Your task to perform on an android device: install app "Fetch Rewards" Image 0: 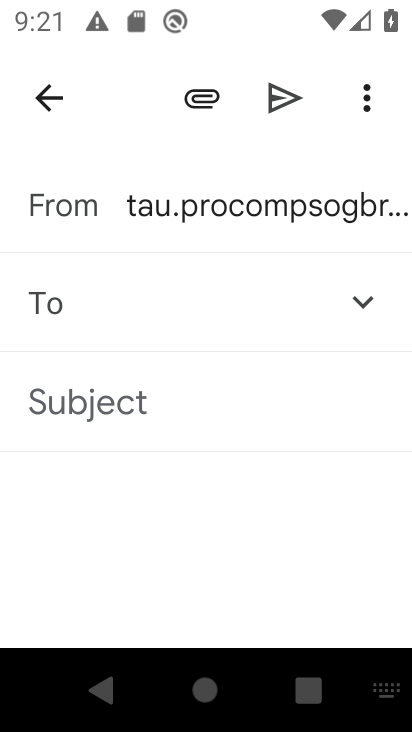
Step 0: press home button
Your task to perform on an android device: install app "Fetch Rewards" Image 1: 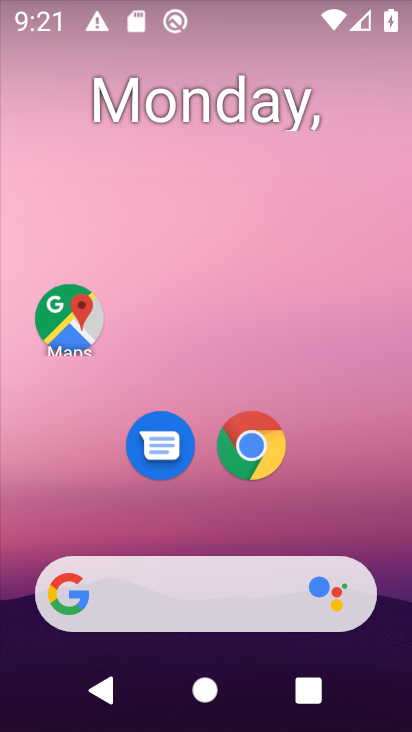
Step 1: drag from (396, 619) to (221, 39)
Your task to perform on an android device: install app "Fetch Rewards" Image 2: 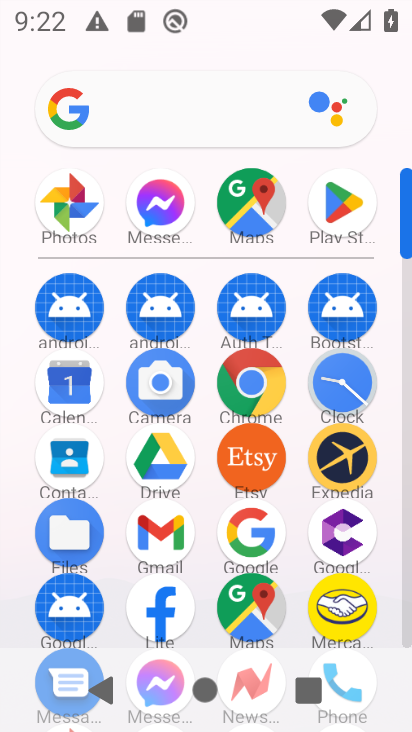
Step 2: click (356, 197)
Your task to perform on an android device: install app "Fetch Rewards" Image 3: 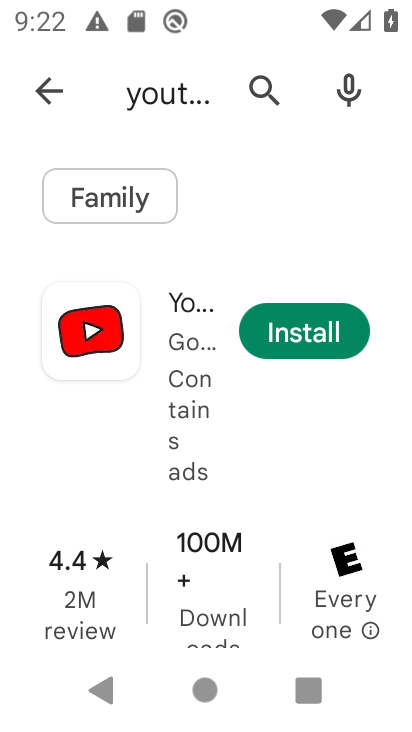
Step 3: press back button
Your task to perform on an android device: install app "Fetch Rewards" Image 4: 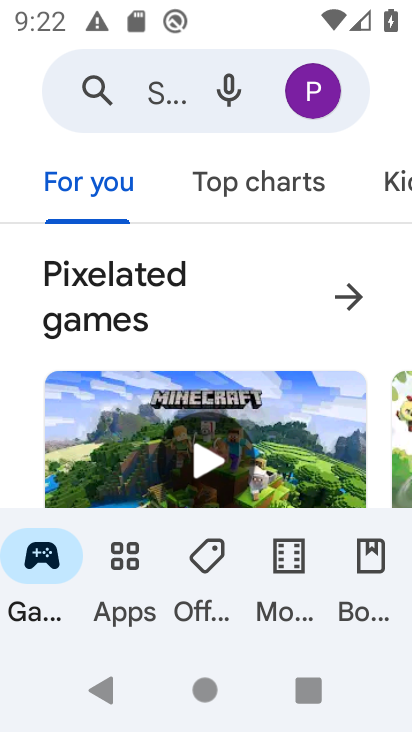
Step 4: click (157, 97)
Your task to perform on an android device: install app "Fetch Rewards" Image 5: 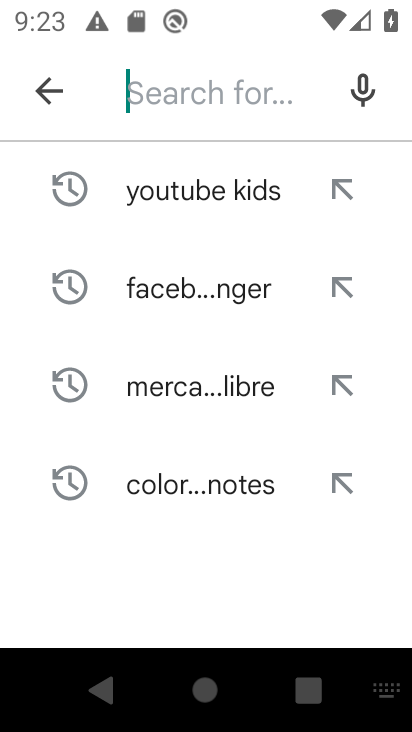
Step 5: type "Fetch Rewards"
Your task to perform on an android device: install app "Fetch Rewards" Image 6: 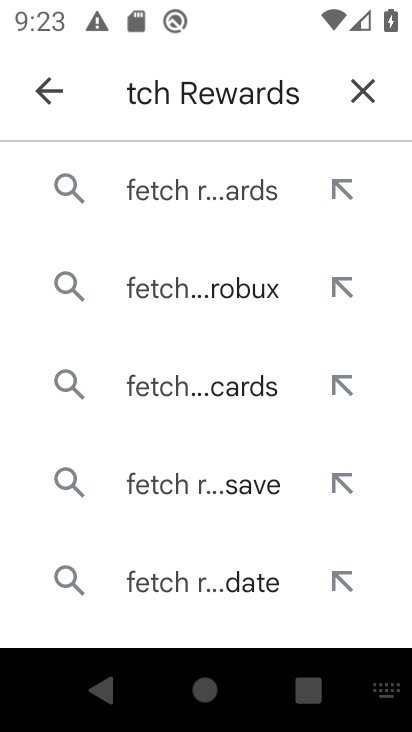
Step 6: click (198, 194)
Your task to perform on an android device: install app "Fetch Rewards" Image 7: 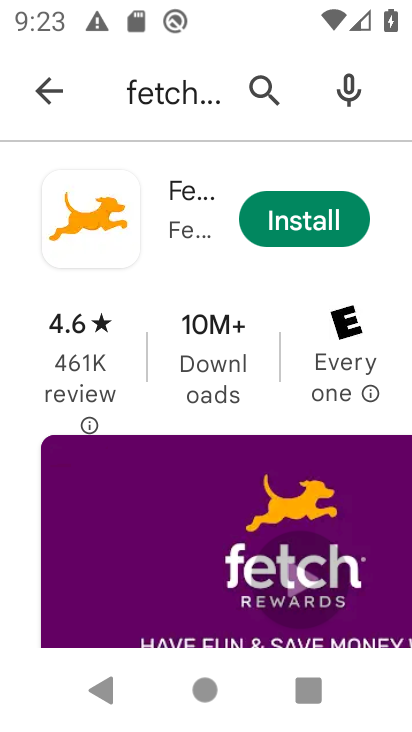
Step 7: click (298, 225)
Your task to perform on an android device: install app "Fetch Rewards" Image 8: 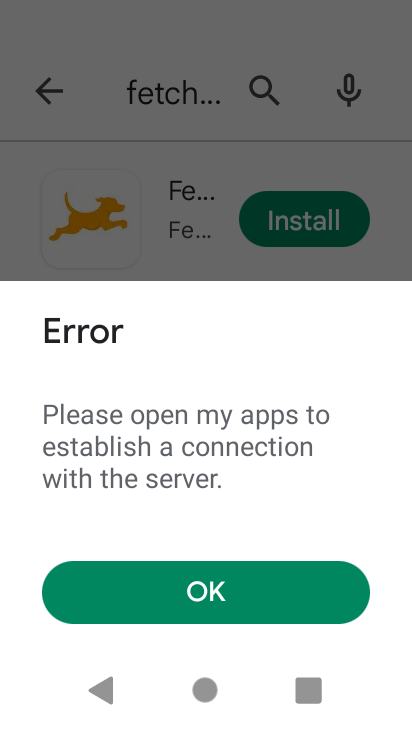
Step 8: task complete